Your task to perform on an android device: Open ESPN.com Image 0: 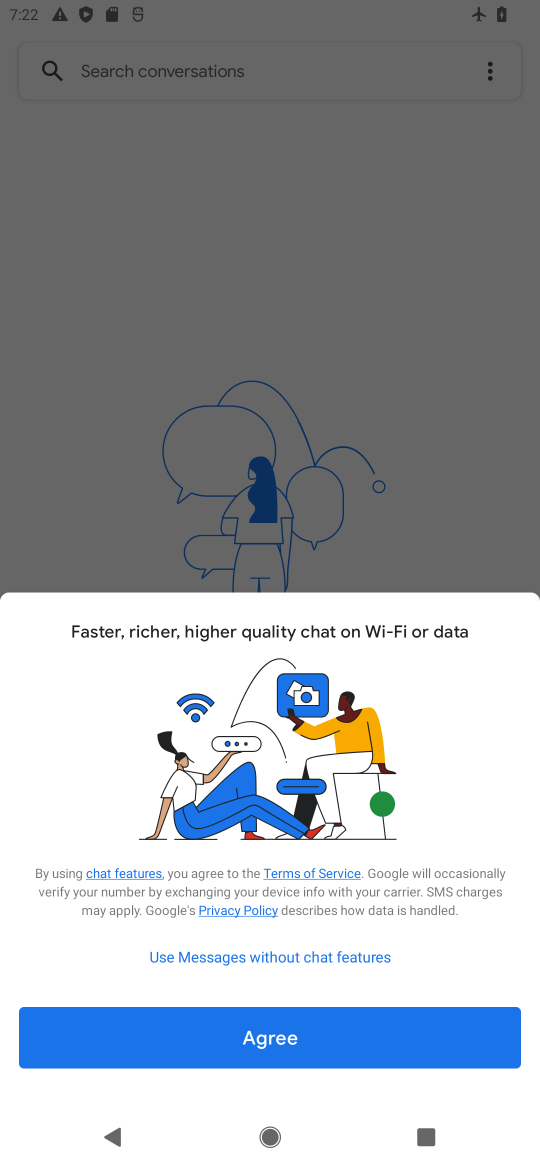
Step 0: press home button
Your task to perform on an android device: Open ESPN.com Image 1: 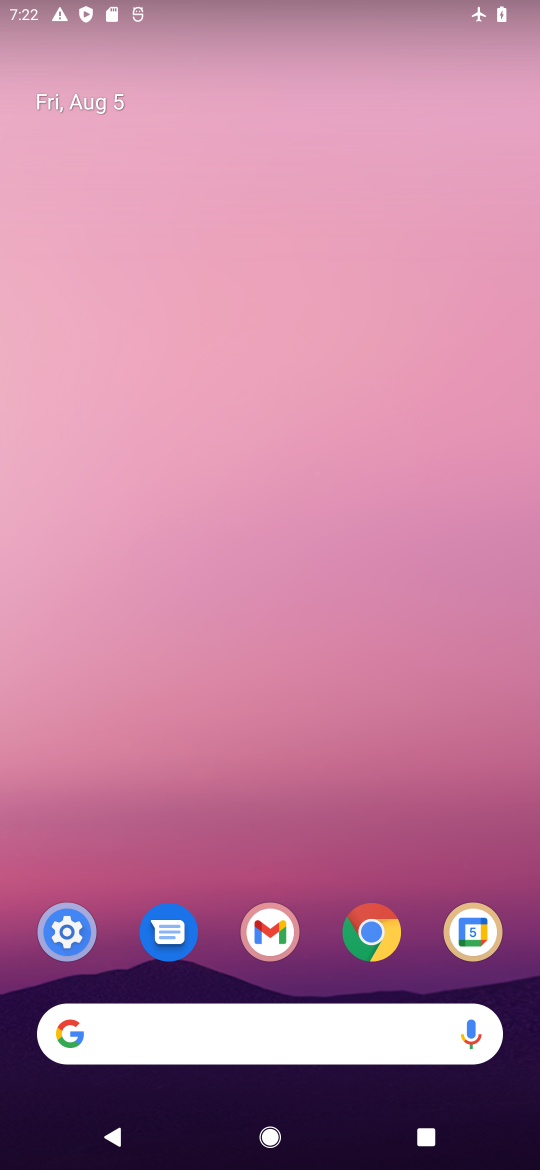
Step 1: click (368, 932)
Your task to perform on an android device: Open ESPN.com Image 2: 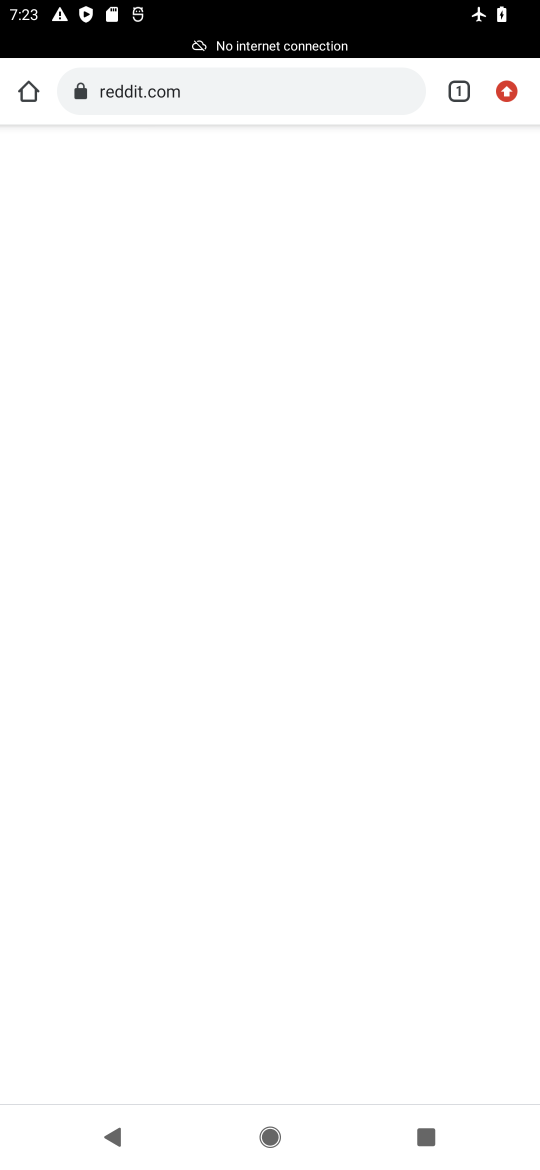
Step 2: click (340, 72)
Your task to perform on an android device: Open ESPN.com Image 3: 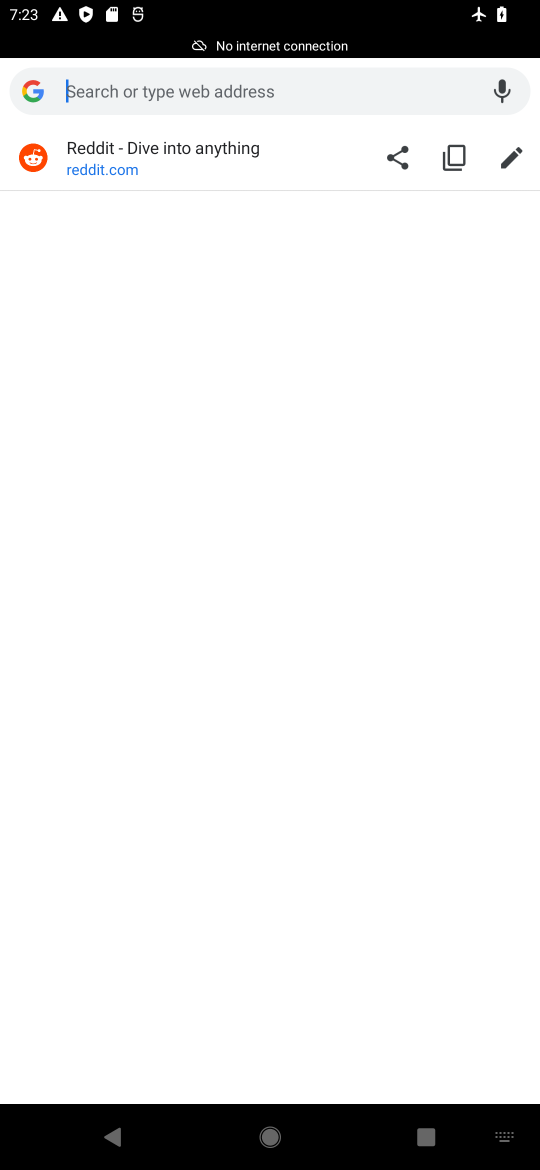
Step 3: type "ESPN.com"
Your task to perform on an android device: Open ESPN.com Image 4: 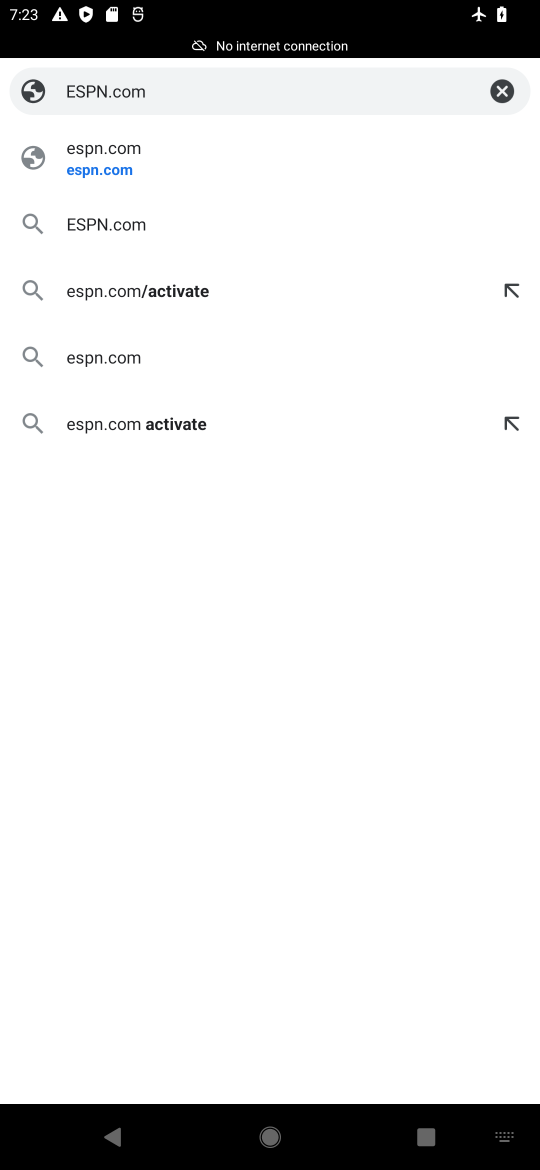
Step 4: click (118, 235)
Your task to perform on an android device: Open ESPN.com Image 5: 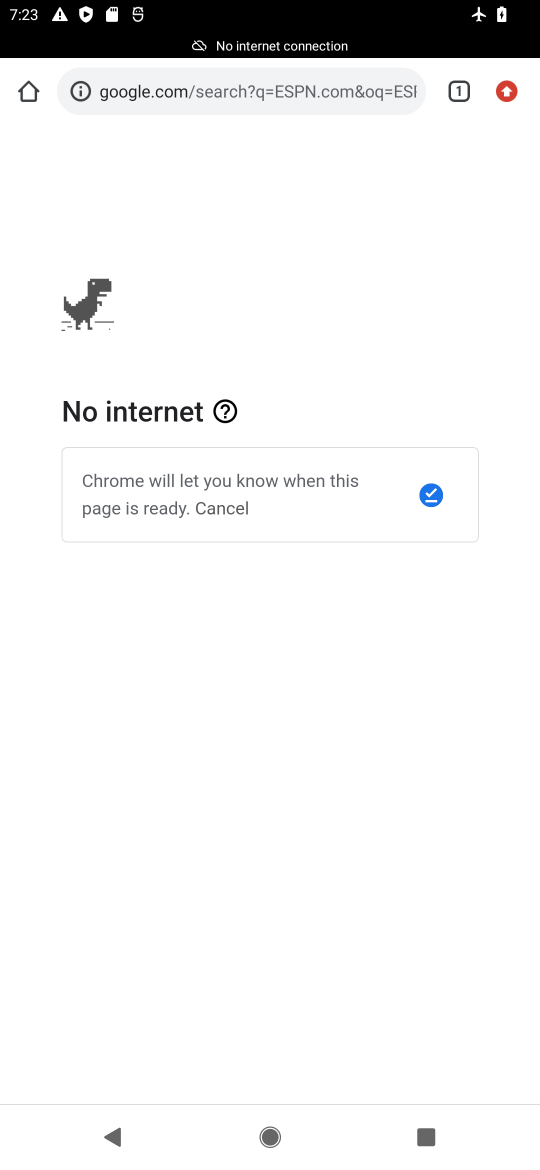
Step 5: task complete